Your task to perform on an android device: move an email to a new category in the gmail app Image 0: 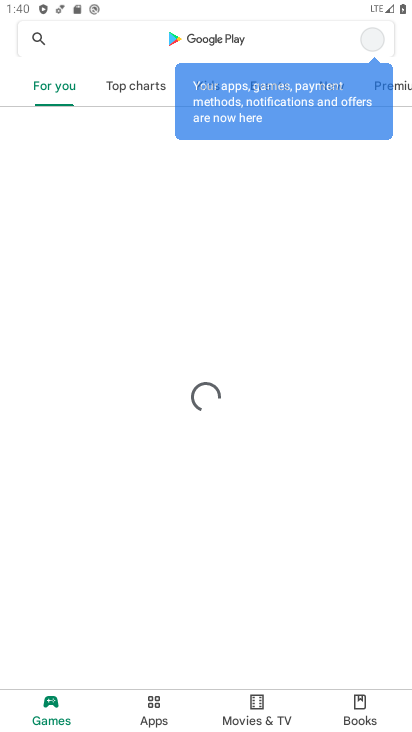
Step 0: task complete